Your task to perform on an android device: Go to privacy settings Image 0: 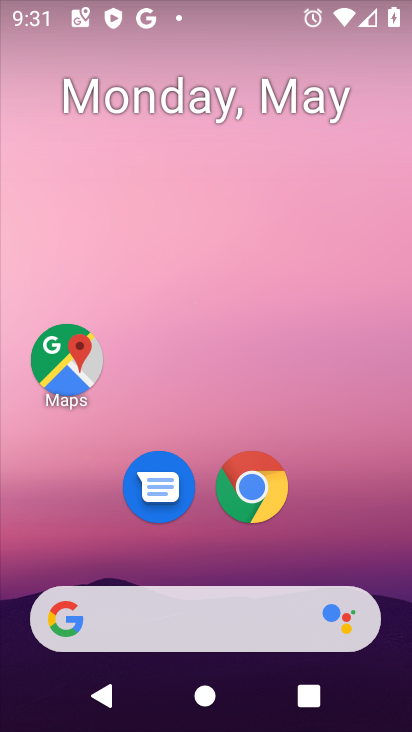
Step 0: drag from (202, 581) to (244, 113)
Your task to perform on an android device: Go to privacy settings Image 1: 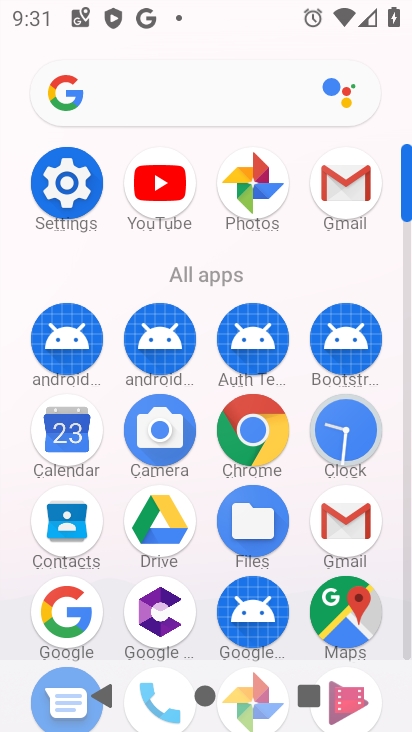
Step 1: click (79, 180)
Your task to perform on an android device: Go to privacy settings Image 2: 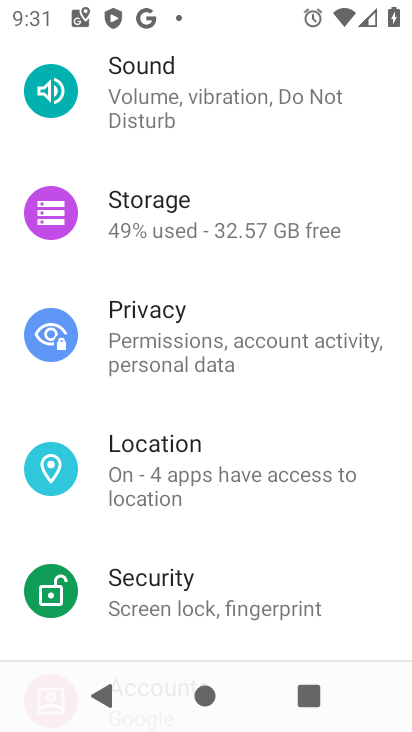
Step 2: click (283, 340)
Your task to perform on an android device: Go to privacy settings Image 3: 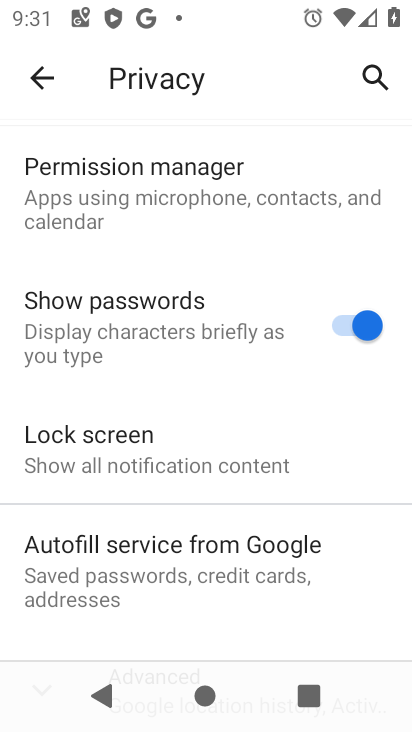
Step 3: task complete